Your task to perform on an android device: stop showing notifications on the lock screen Image 0: 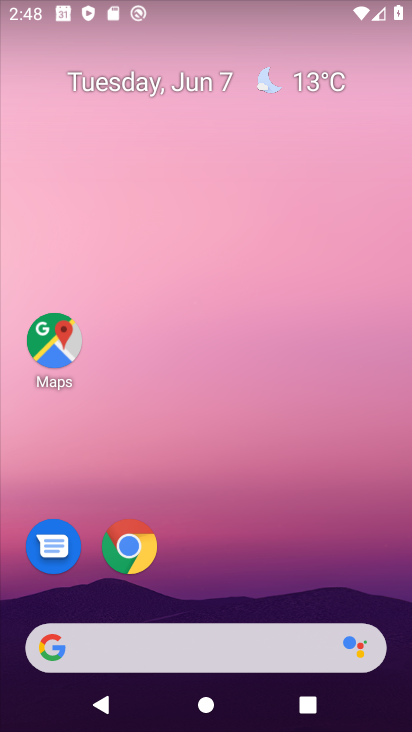
Step 0: drag from (183, 554) to (224, 196)
Your task to perform on an android device: stop showing notifications on the lock screen Image 1: 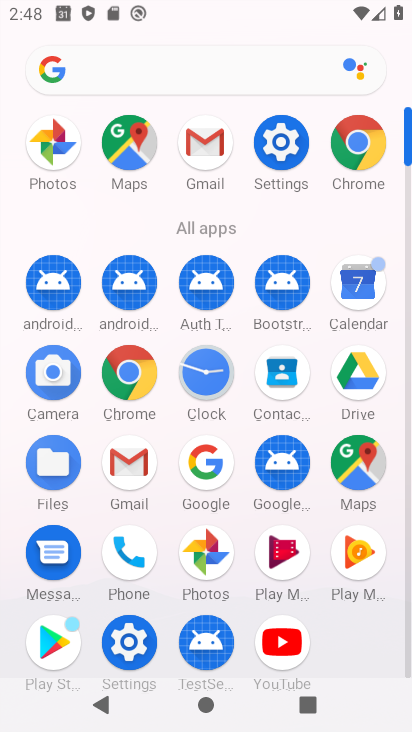
Step 1: click (282, 141)
Your task to perform on an android device: stop showing notifications on the lock screen Image 2: 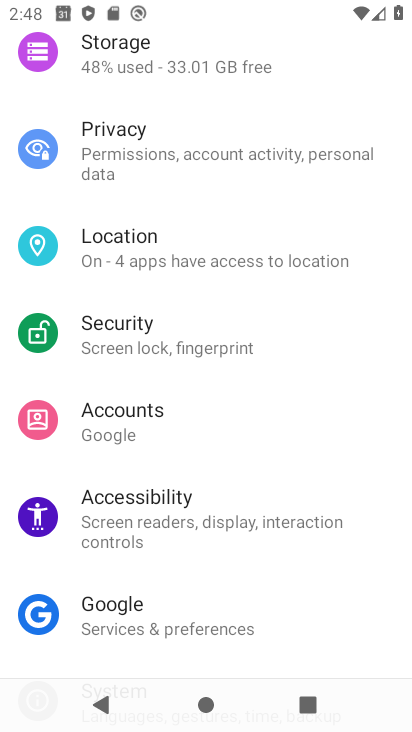
Step 2: drag from (218, 214) to (184, 599)
Your task to perform on an android device: stop showing notifications on the lock screen Image 3: 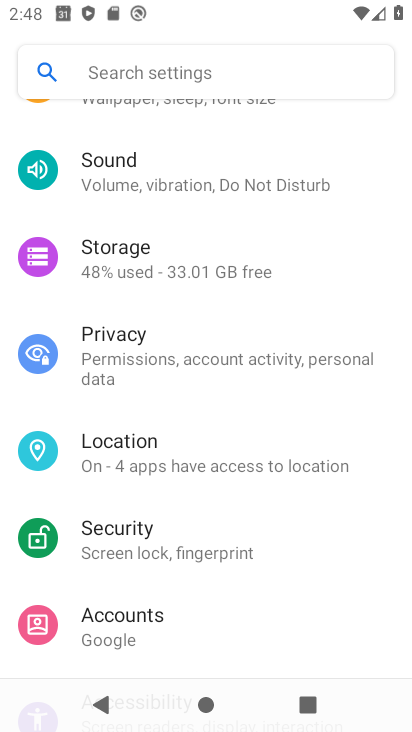
Step 3: drag from (186, 158) to (150, 596)
Your task to perform on an android device: stop showing notifications on the lock screen Image 4: 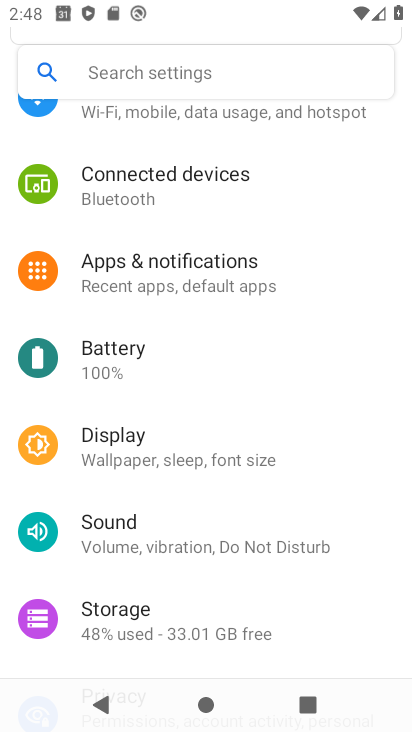
Step 4: click (182, 264)
Your task to perform on an android device: stop showing notifications on the lock screen Image 5: 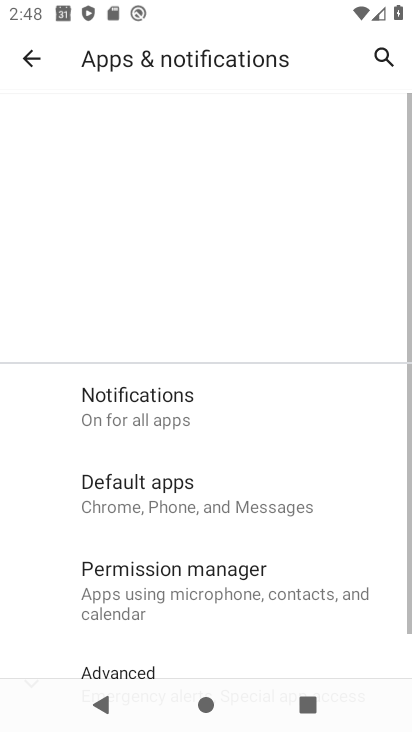
Step 5: click (171, 417)
Your task to perform on an android device: stop showing notifications on the lock screen Image 6: 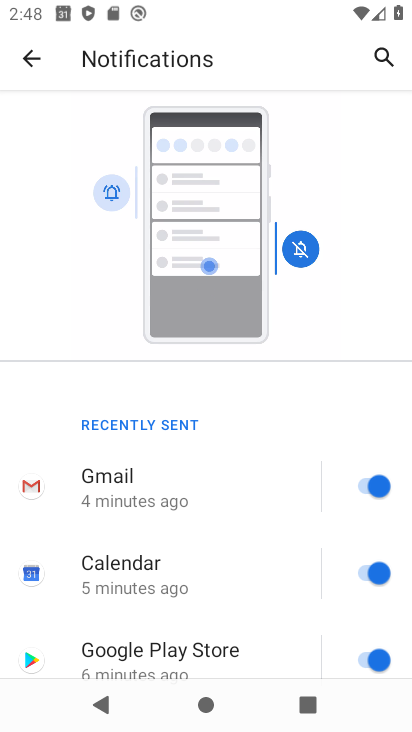
Step 6: drag from (181, 575) to (206, 181)
Your task to perform on an android device: stop showing notifications on the lock screen Image 7: 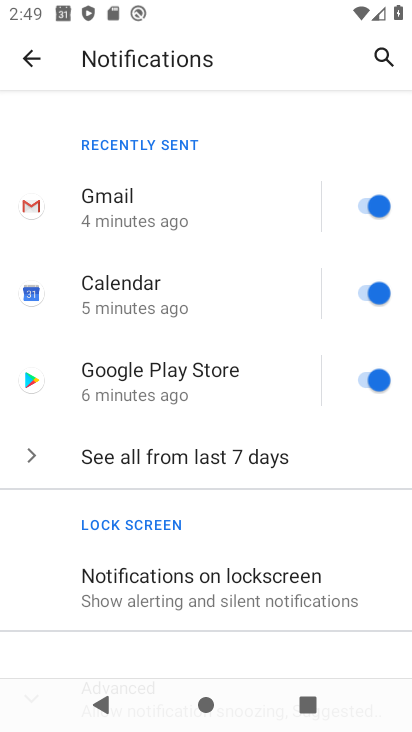
Step 7: click (153, 569)
Your task to perform on an android device: stop showing notifications on the lock screen Image 8: 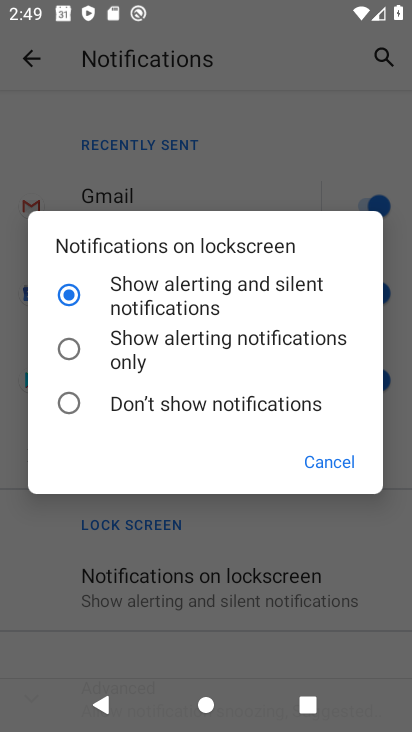
Step 8: click (134, 420)
Your task to perform on an android device: stop showing notifications on the lock screen Image 9: 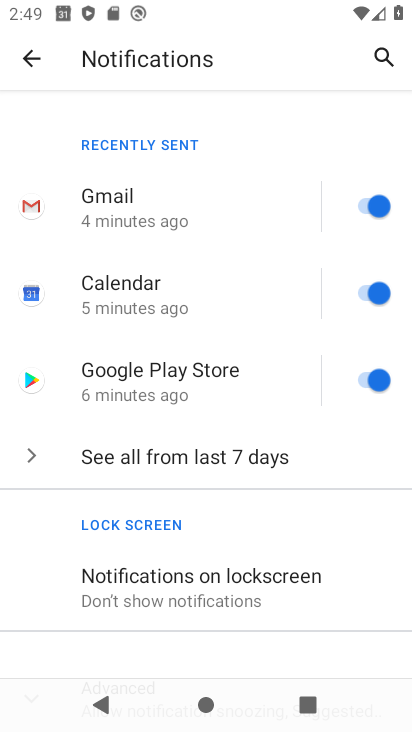
Step 9: task complete